Your task to perform on an android device: install app "Messenger Lite" Image 0: 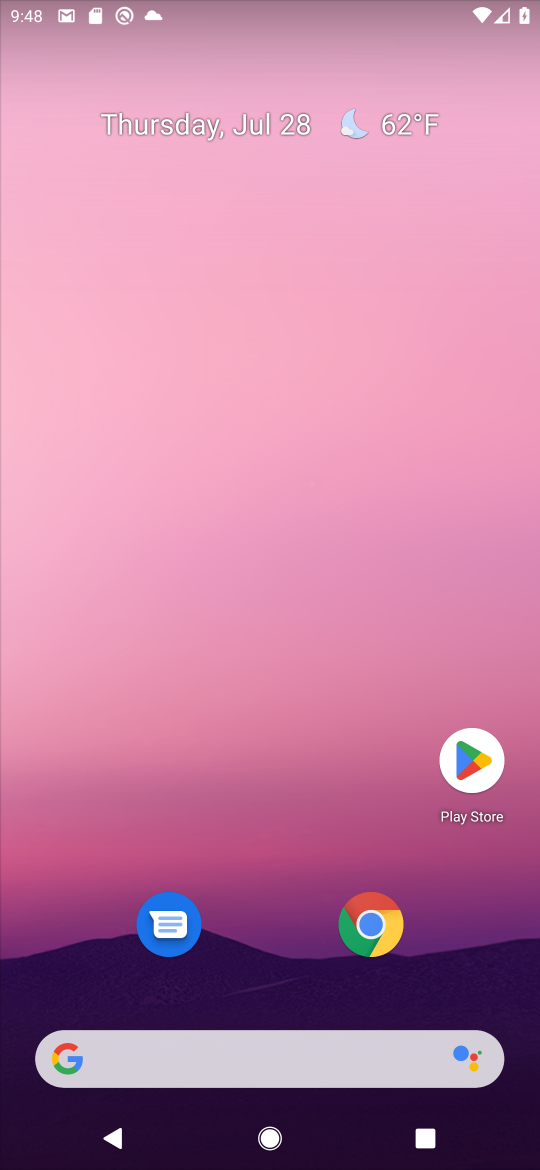
Step 0: press home button
Your task to perform on an android device: install app "Messenger Lite" Image 1: 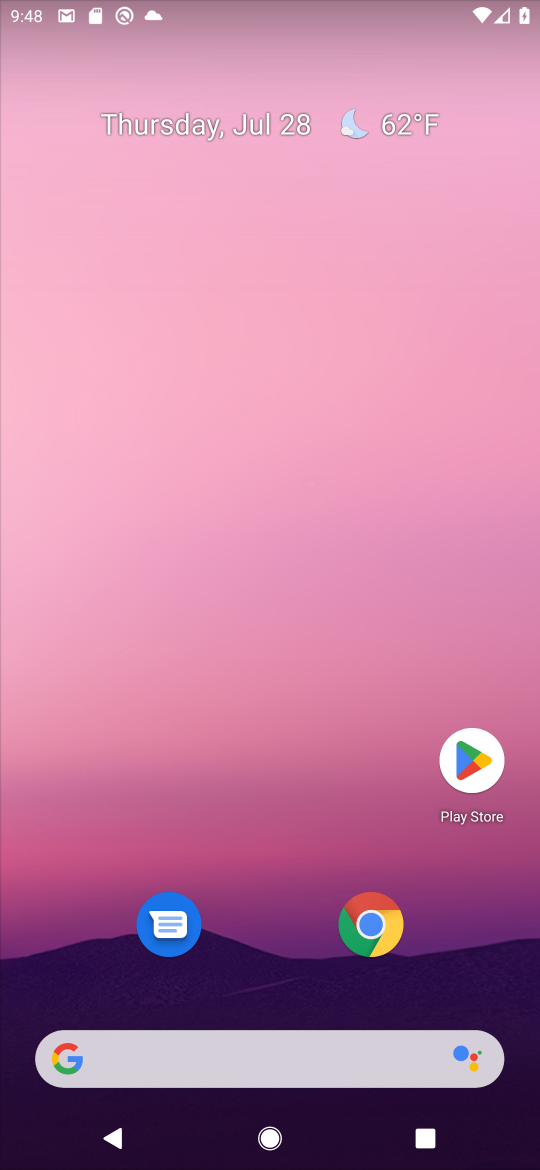
Step 1: click (476, 761)
Your task to perform on an android device: install app "Messenger Lite" Image 2: 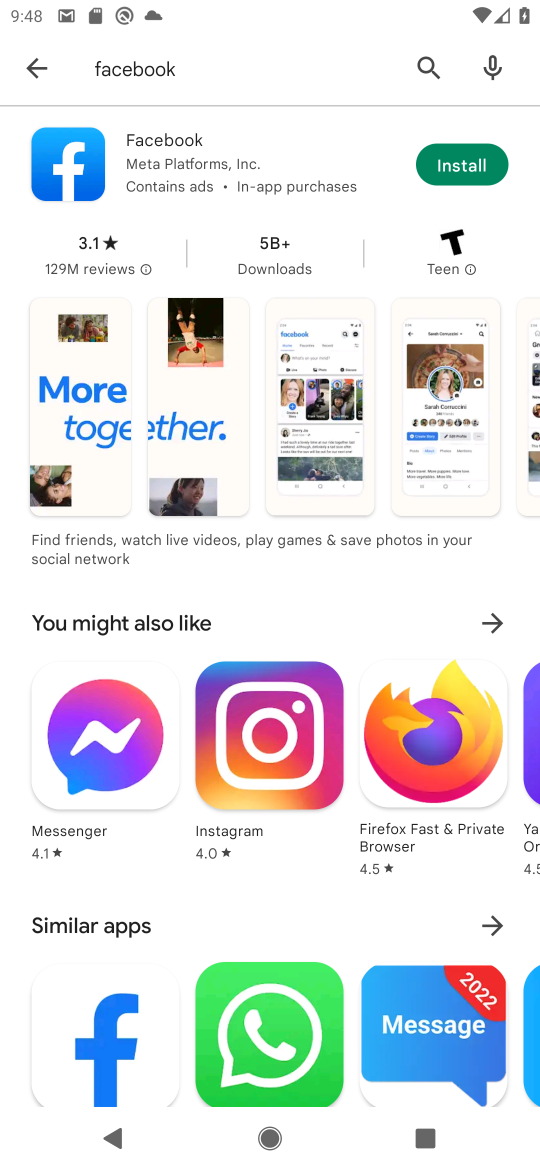
Step 2: click (418, 67)
Your task to perform on an android device: install app "Messenger Lite" Image 3: 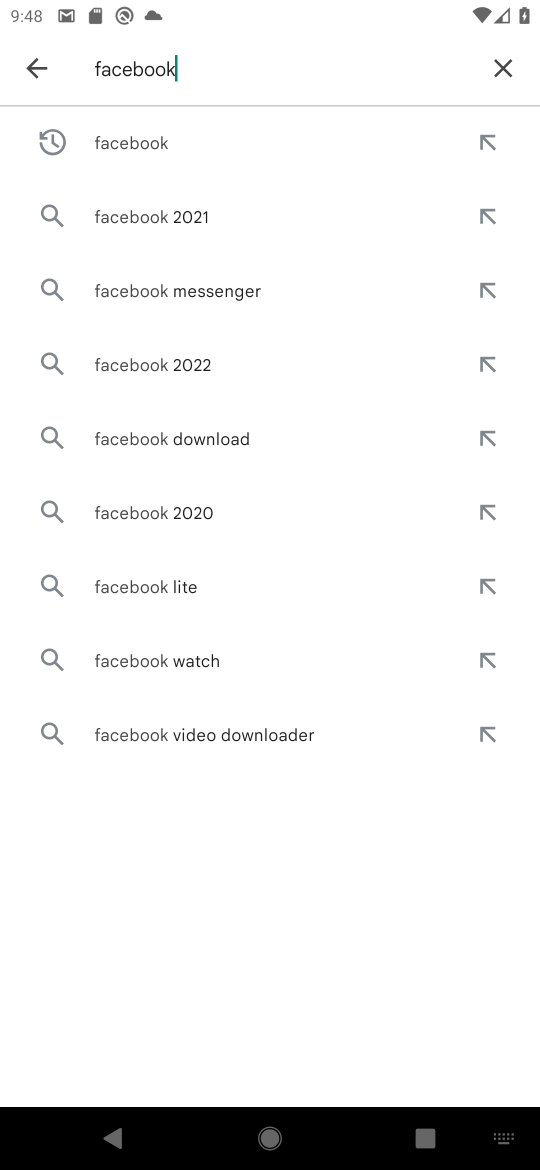
Step 3: click (494, 61)
Your task to perform on an android device: install app "Messenger Lite" Image 4: 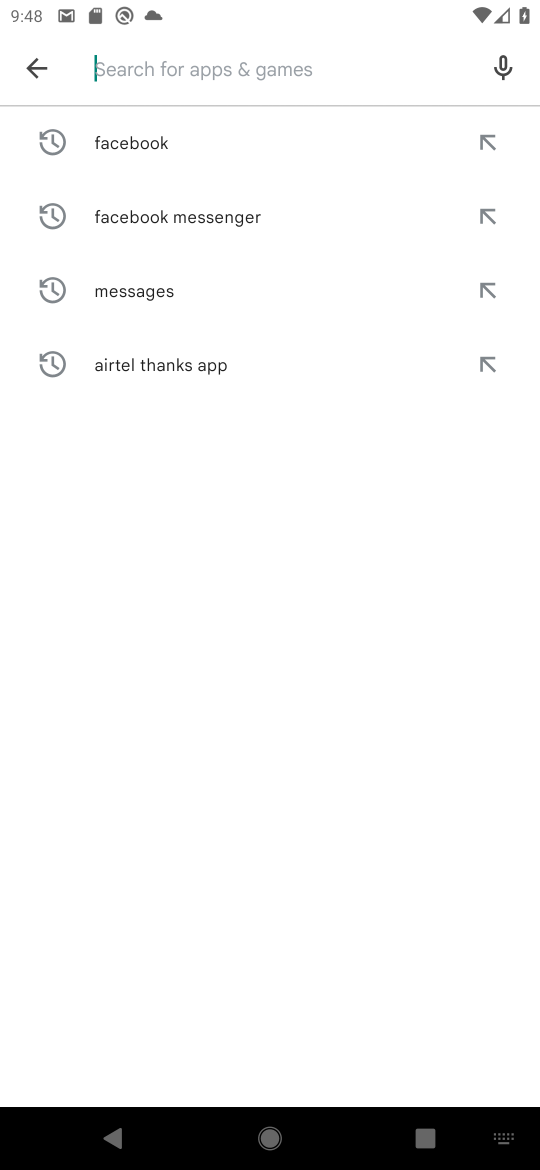
Step 4: type "Messenger Lite"
Your task to perform on an android device: install app "Messenger Lite" Image 5: 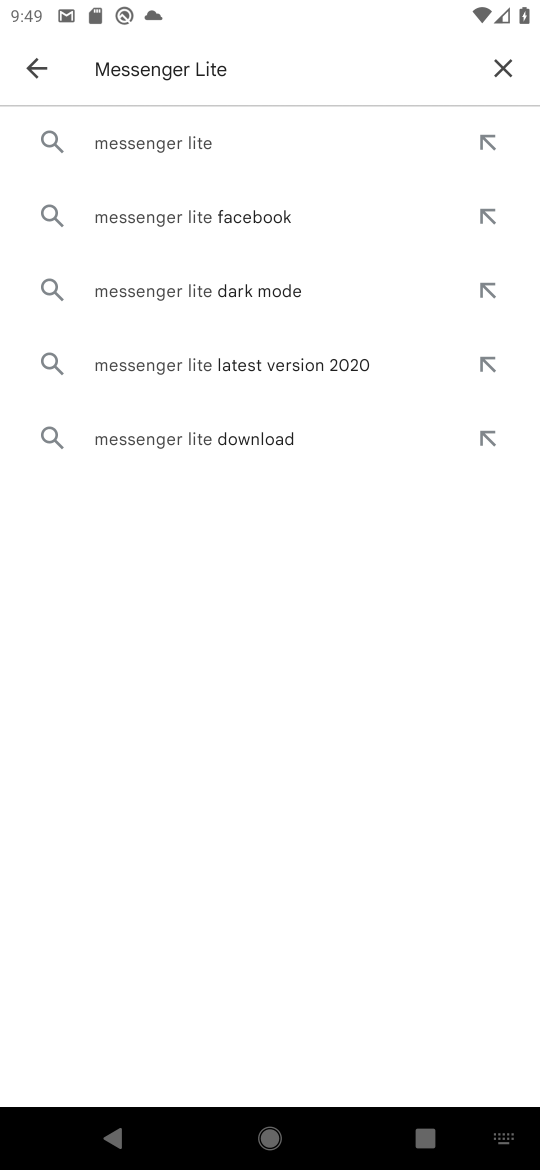
Step 5: click (71, 141)
Your task to perform on an android device: install app "Messenger Lite" Image 6: 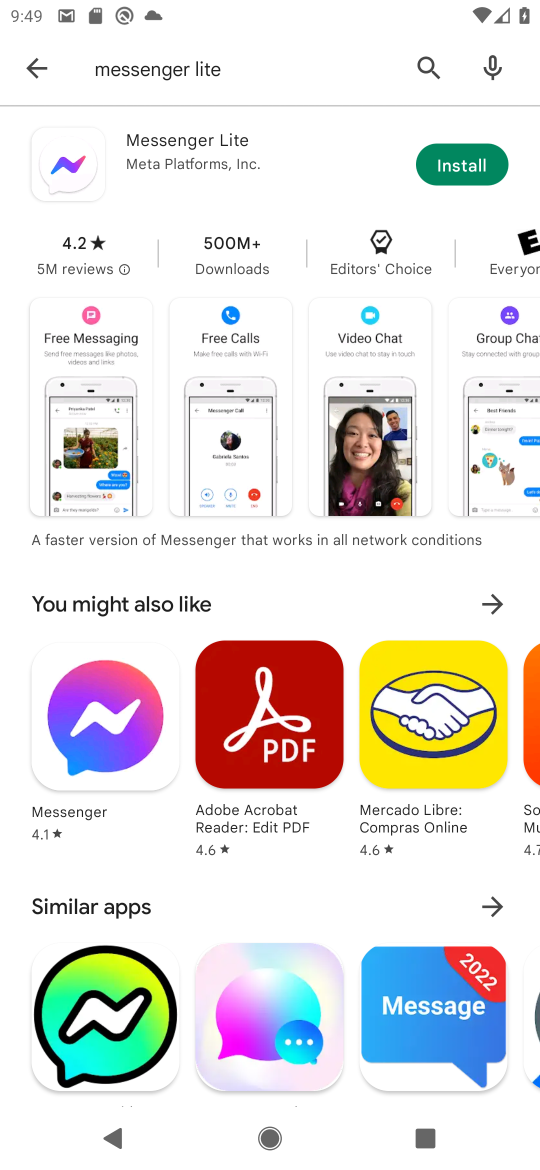
Step 6: click (446, 163)
Your task to perform on an android device: install app "Messenger Lite" Image 7: 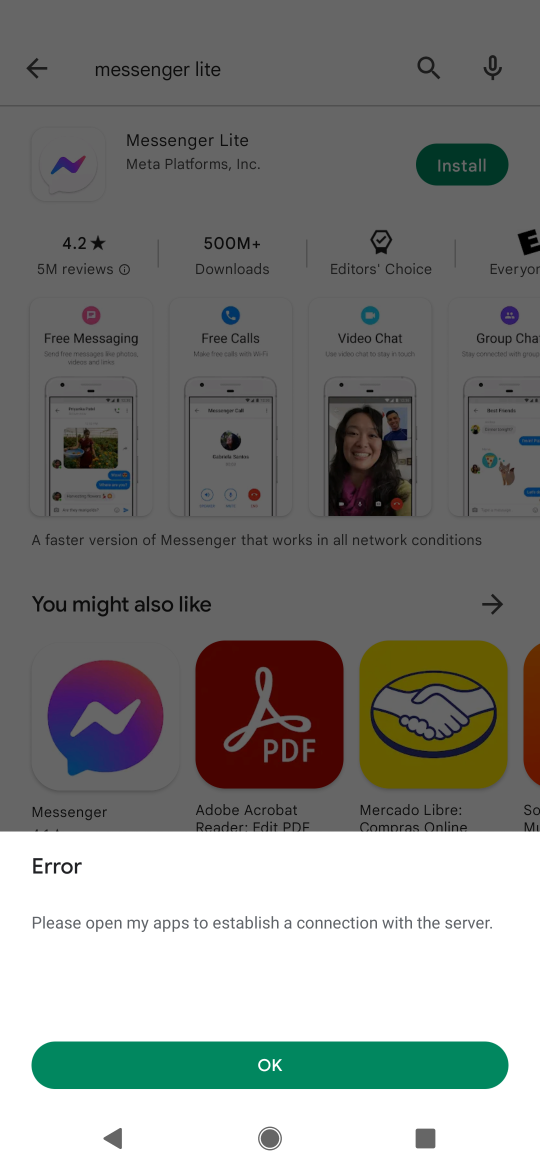
Step 7: click (262, 1060)
Your task to perform on an android device: install app "Messenger Lite" Image 8: 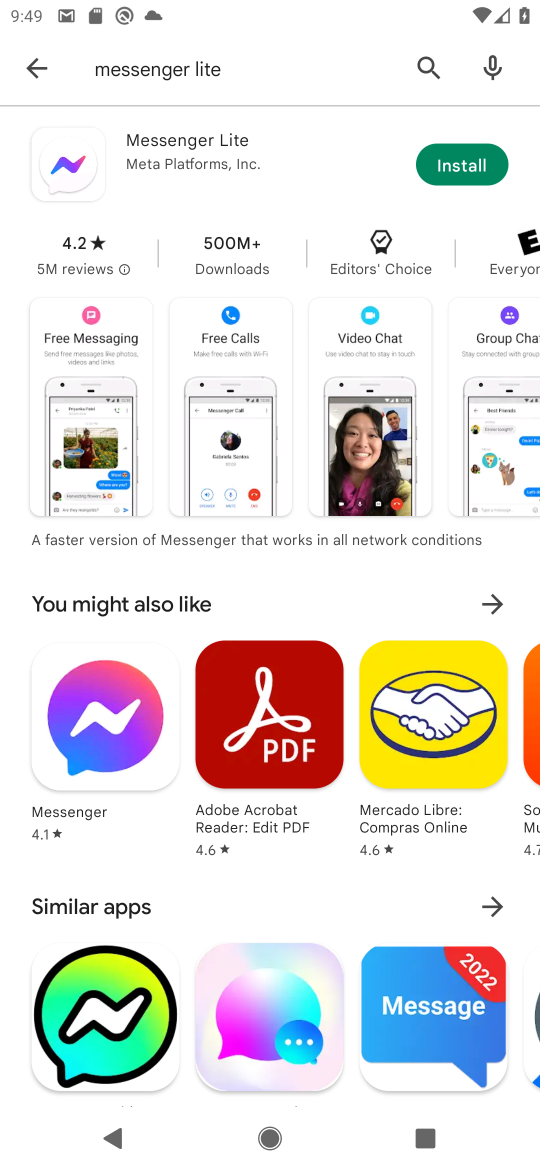
Step 8: click (462, 155)
Your task to perform on an android device: install app "Messenger Lite" Image 9: 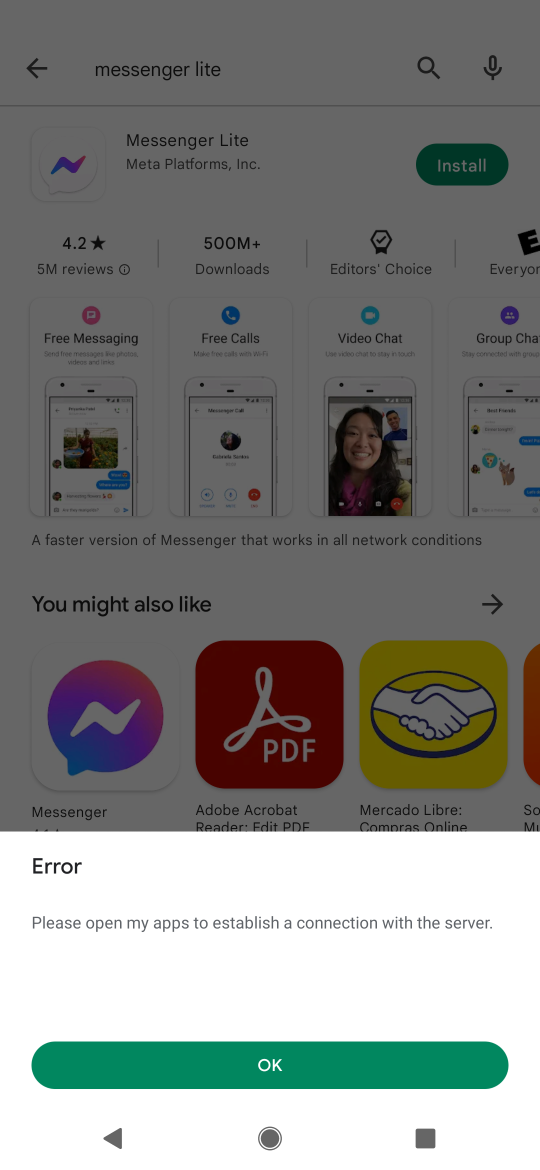
Step 9: click (266, 1066)
Your task to perform on an android device: install app "Messenger Lite" Image 10: 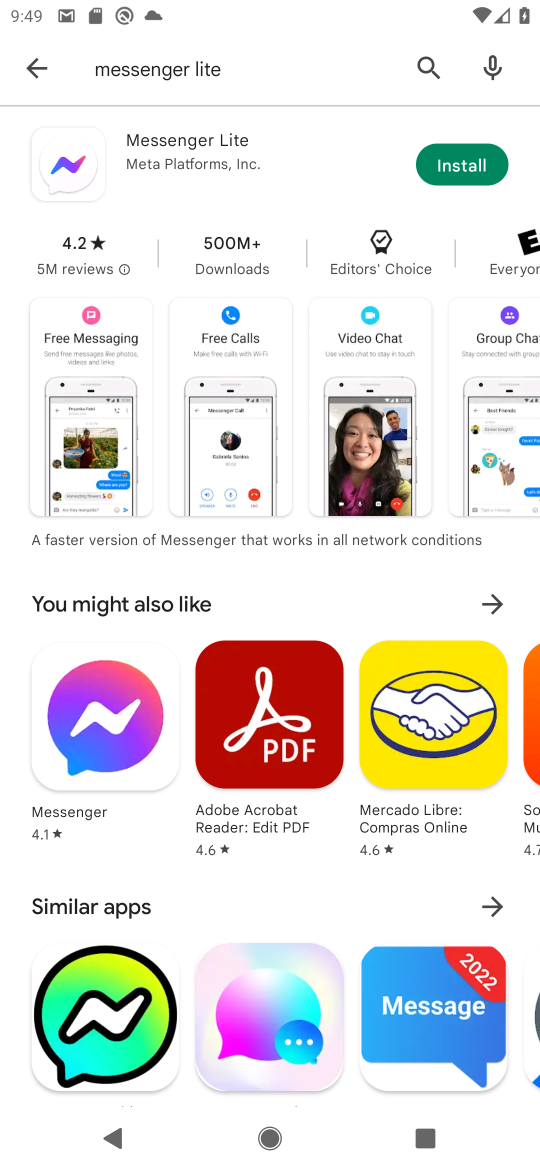
Step 10: click (442, 166)
Your task to perform on an android device: install app "Messenger Lite" Image 11: 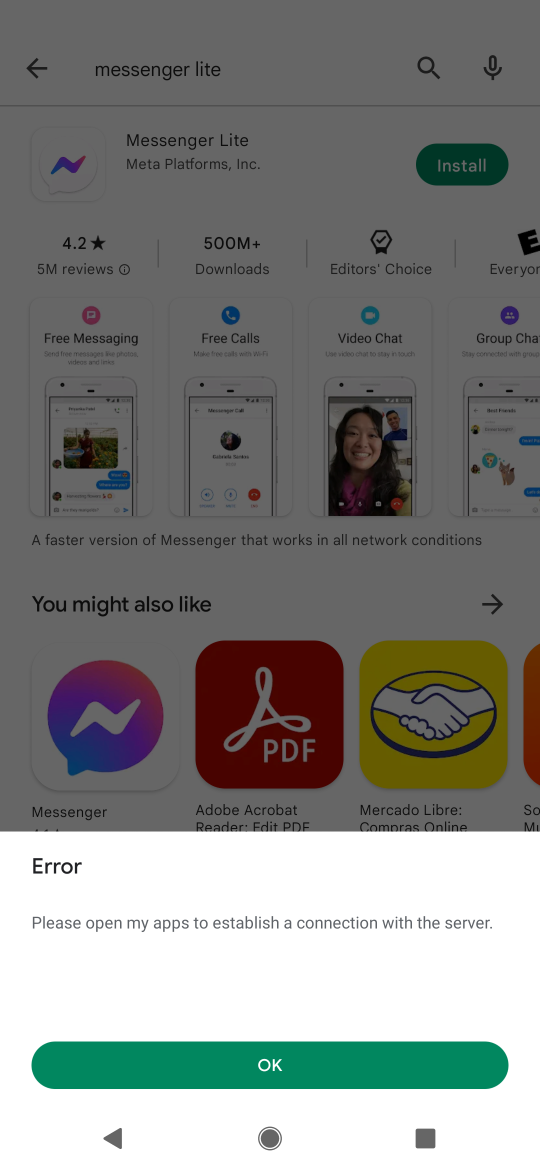
Step 11: task complete